Your task to perform on an android device: turn on javascript in the chrome app Image 0: 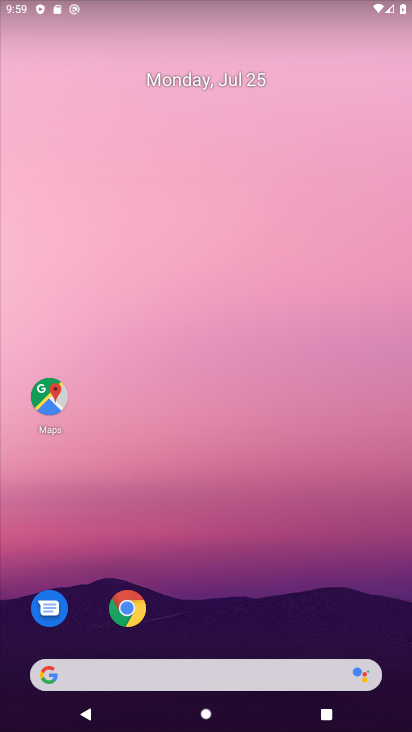
Step 0: drag from (196, 634) to (398, 45)
Your task to perform on an android device: turn on javascript in the chrome app Image 1: 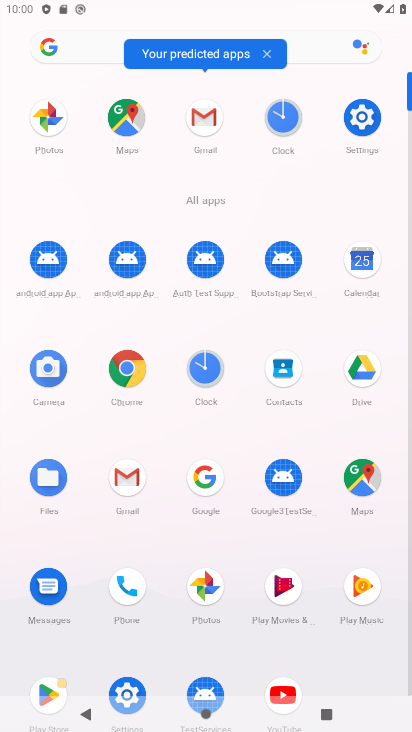
Step 1: click (126, 370)
Your task to perform on an android device: turn on javascript in the chrome app Image 2: 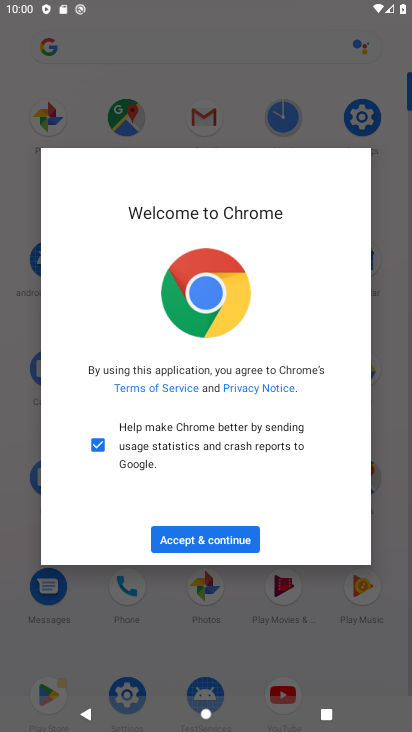
Step 2: click (208, 528)
Your task to perform on an android device: turn on javascript in the chrome app Image 3: 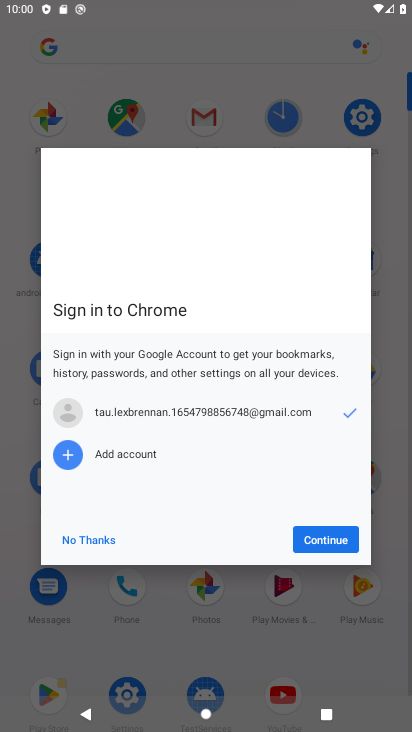
Step 3: click (307, 541)
Your task to perform on an android device: turn on javascript in the chrome app Image 4: 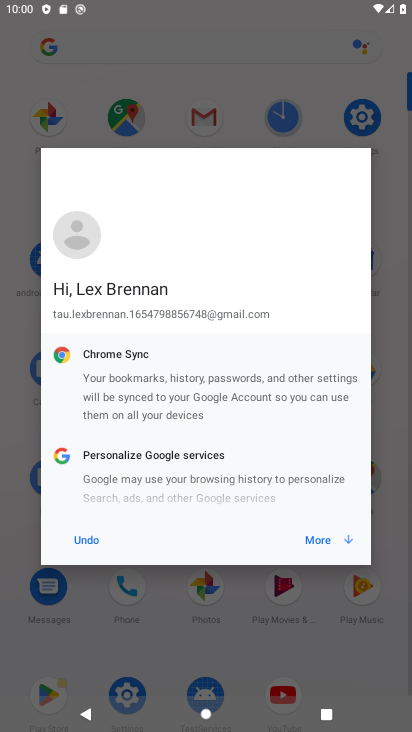
Step 4: click (310, 541)
Your task to perform on an android device: turn on javascript in the chrome app Image 5: 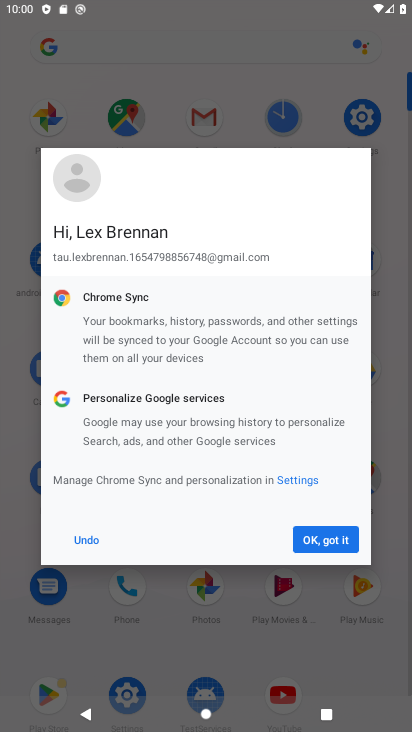
Step 5: click (310, 540)
Your task to perform on an android device: turn on javascript in the chrome app Image 6: 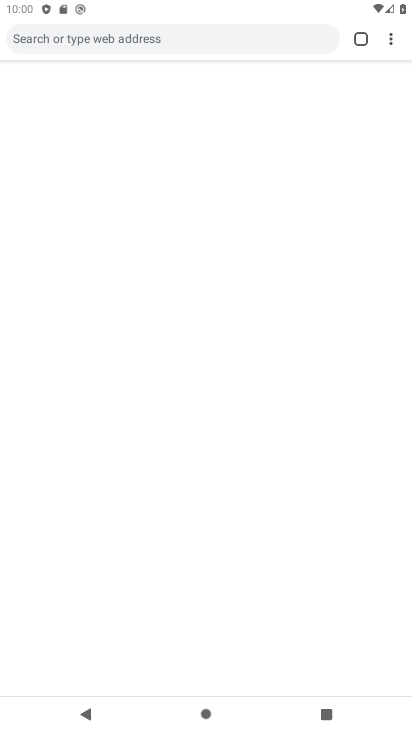
Step 6: click (390, 40)
Your task to perform on an android device: turn on javascript in the chrome app Image 7: 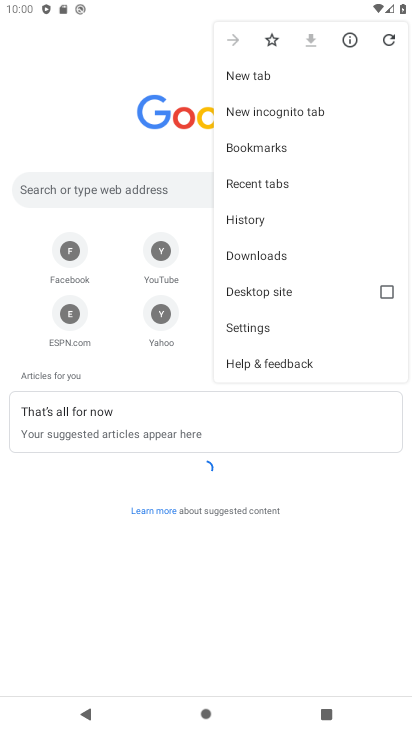
Step 7: click (240, 329)
Your task to perform on an android device: turn on javascript in the chrome app Image 8: 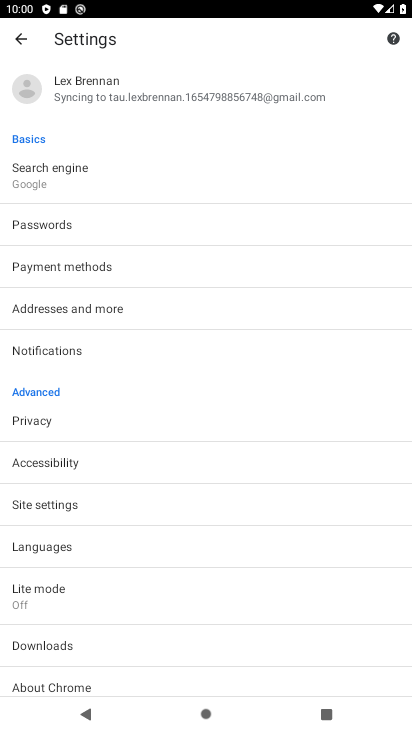
Step 8: click (48, 507)
Your task to perform on an android device: turn on javascript in the chrome app Image 9: 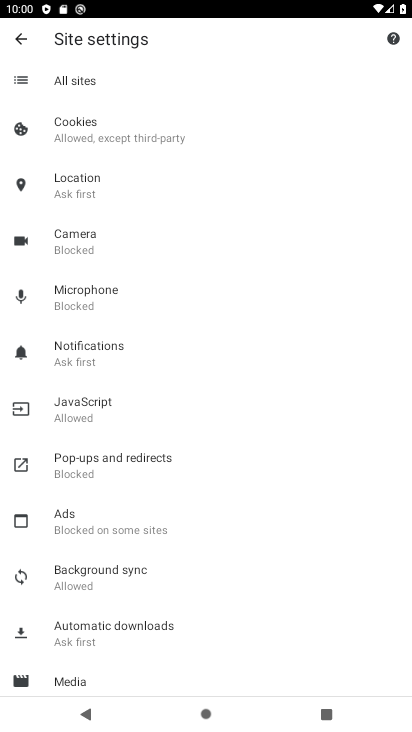
Step 9: click (79, 405)
Your task to perform on an android device: turn on javascript in the chrome app Image 10: 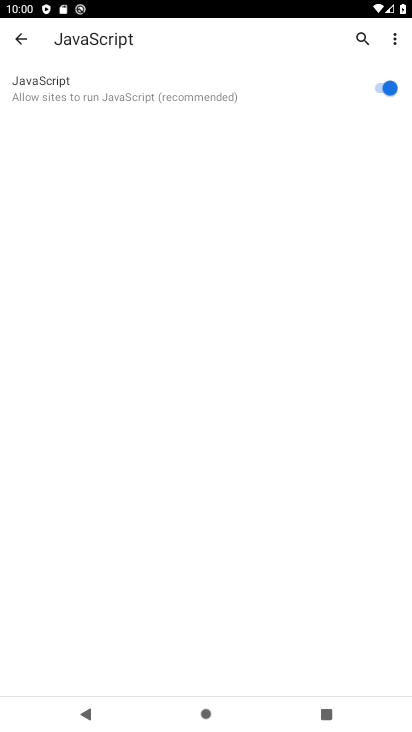
Step 10: task complete